Your task to perform on an android device: see tabs open on other devices in the chrome app Image 0: 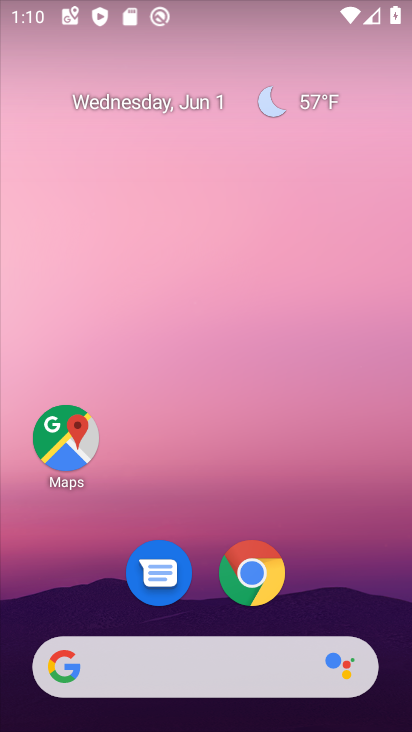
Step 0: drag from (214, 631) to (141, 7)
Your task to perform on an android device: see tabs open on other devices in the chrome app Image 1: 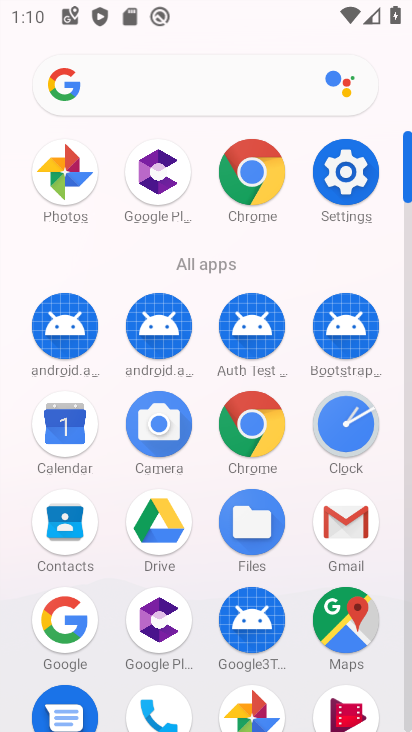
Step 1: click (251, 426)
Your task to perform on an android device: see tabs open on other devices in the chrome app Image 2: 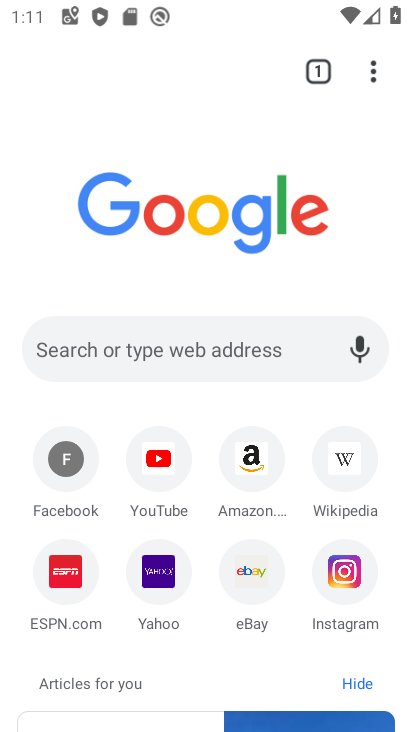
Step 2: drag from (374, 85) to (149, 343)
Your task to perform on an android device: see tabs open on other devices in the chrome app Image 3: 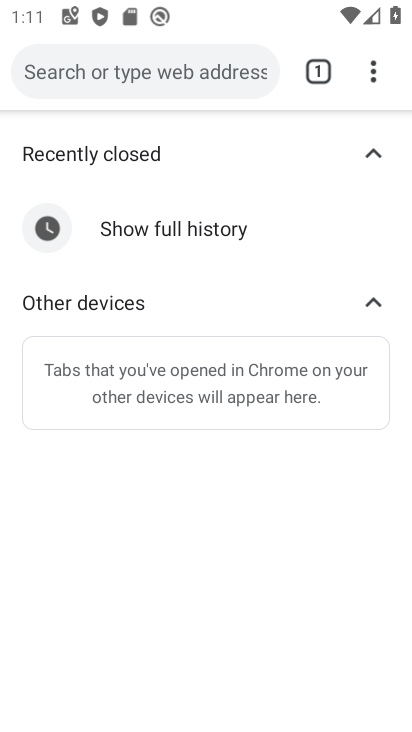
Step 3: click (377, 68)
Your task to perform on an android device: see tabs open on other devices in the chrome app Image 4: 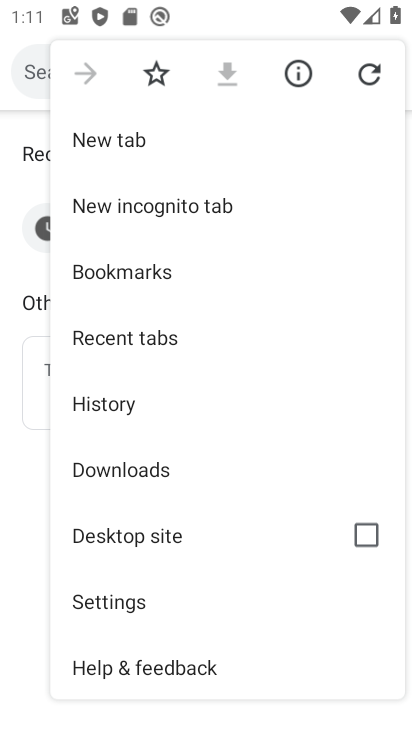
Step 4: task complete